Your task to perform on an android device: change notification settings in the gmail app Image 0: 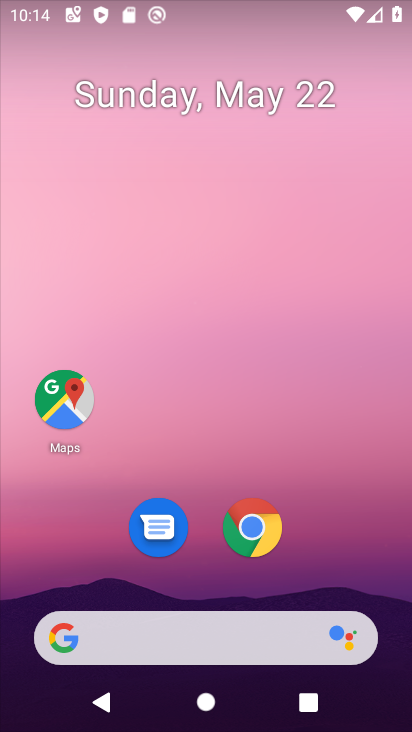
Step 0: drag from (354, 561) to (355, 0)
Your task to perform on an android device: change notification settings in the gmail app Image 1: 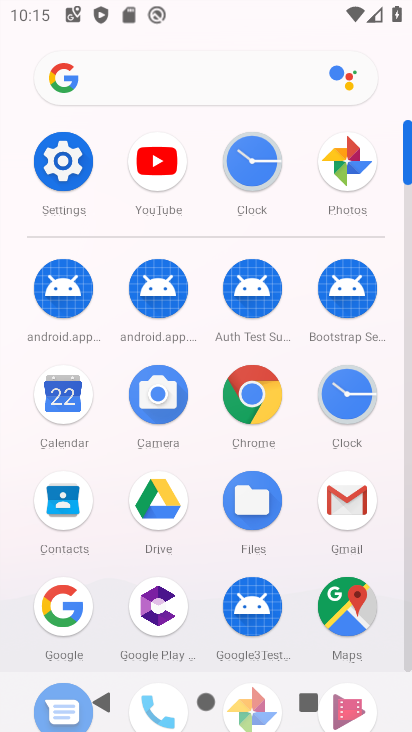
Step 1: click (355, 505)
Your task to perform on an android device: change notification settings in the gmail app Image 2: 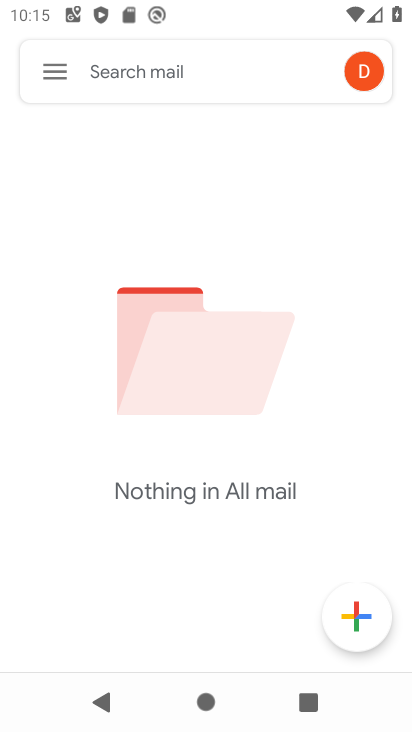
Step 2: task complete